Your task to perform on an android device: Search for dining sets on article.com Image 0: 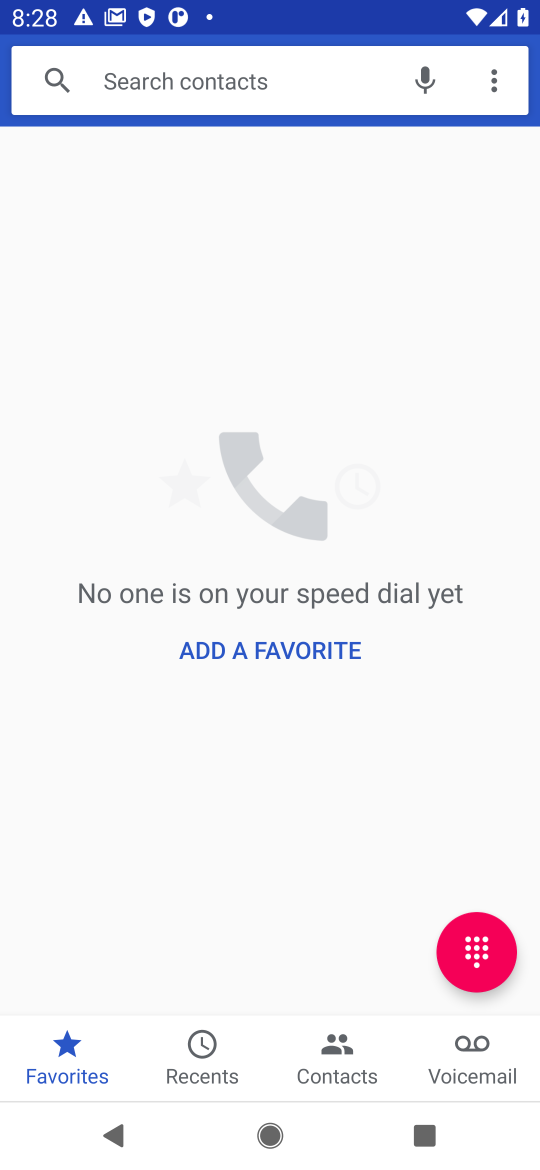
Step 0: press home button
Your task to perform on an android device: Search for dining sets on article.com Image 1: 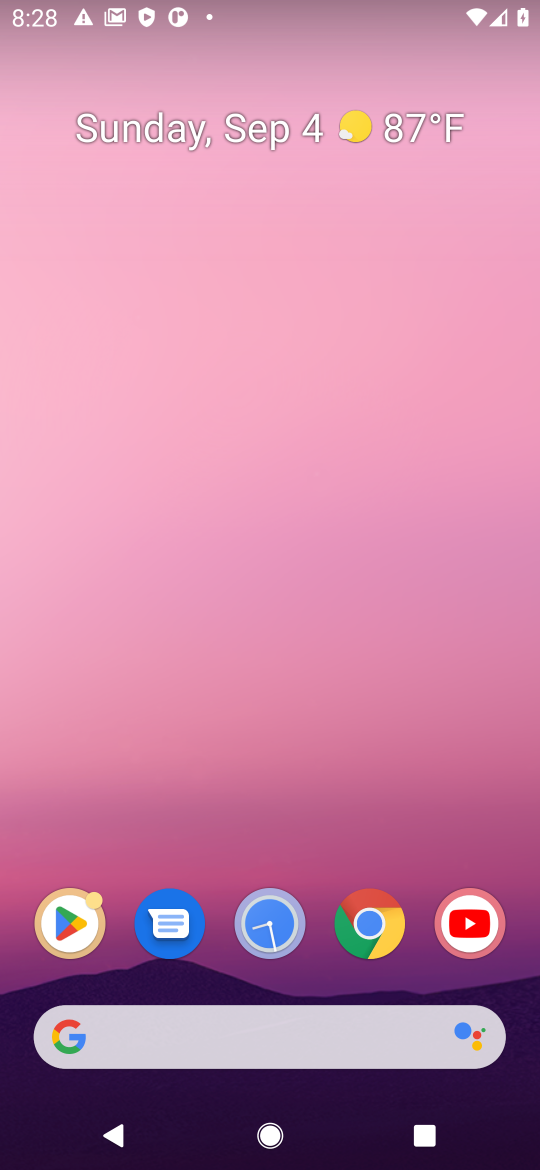
Step 1: click (380, 1039)
Your task to perform on an android device: Search for dining sets on article.com Image 2: 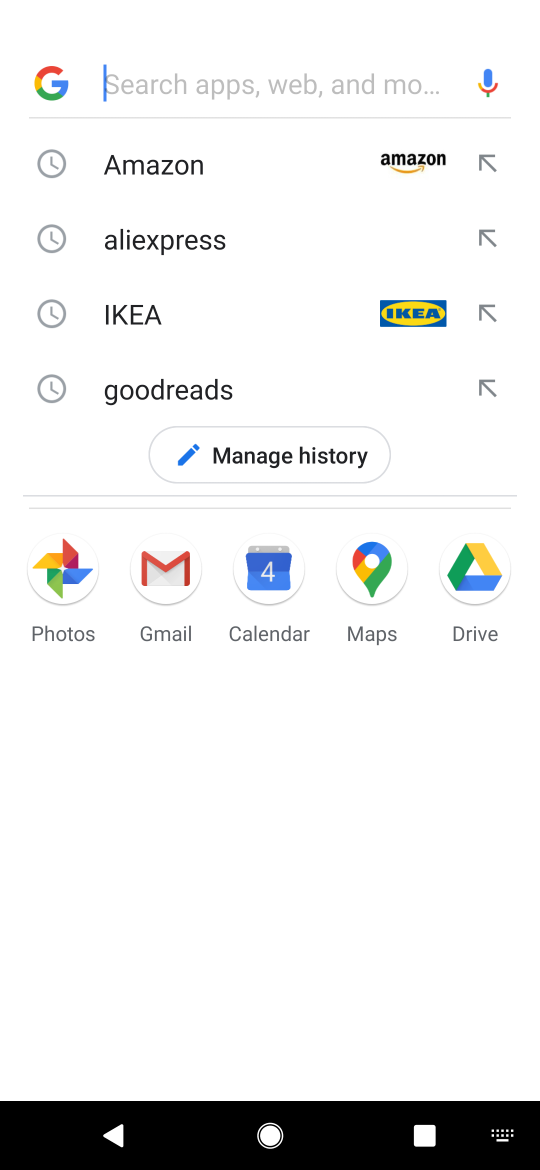
Step 2: press enter
Your task to perform on an android device: Search for dining sets on article.com Image 3: 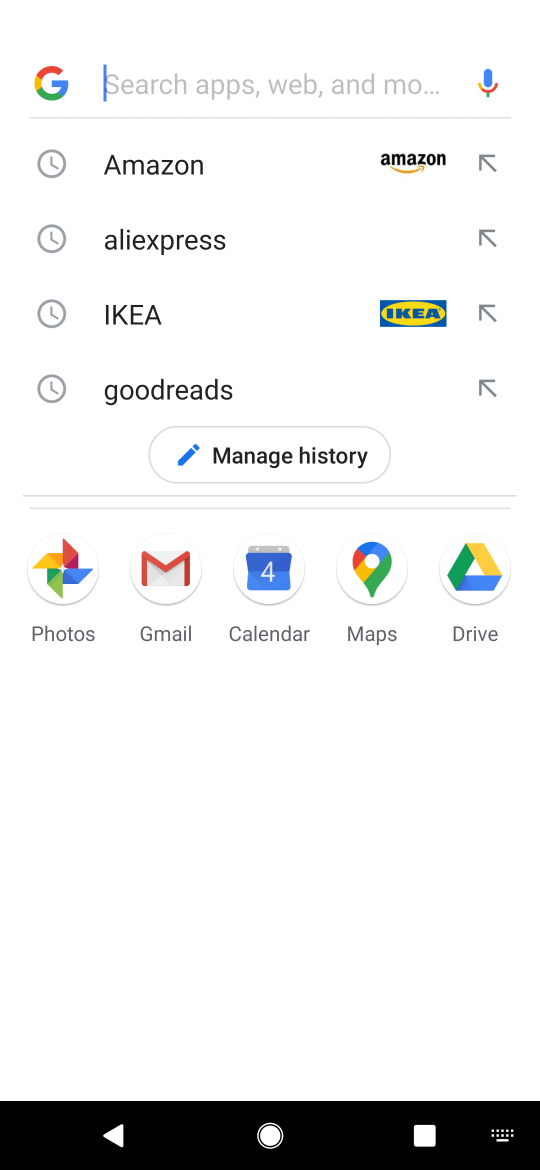
Step 3: type "article.com"
Your task to perform on an android device: Search for dining sets on article.com Image 4: 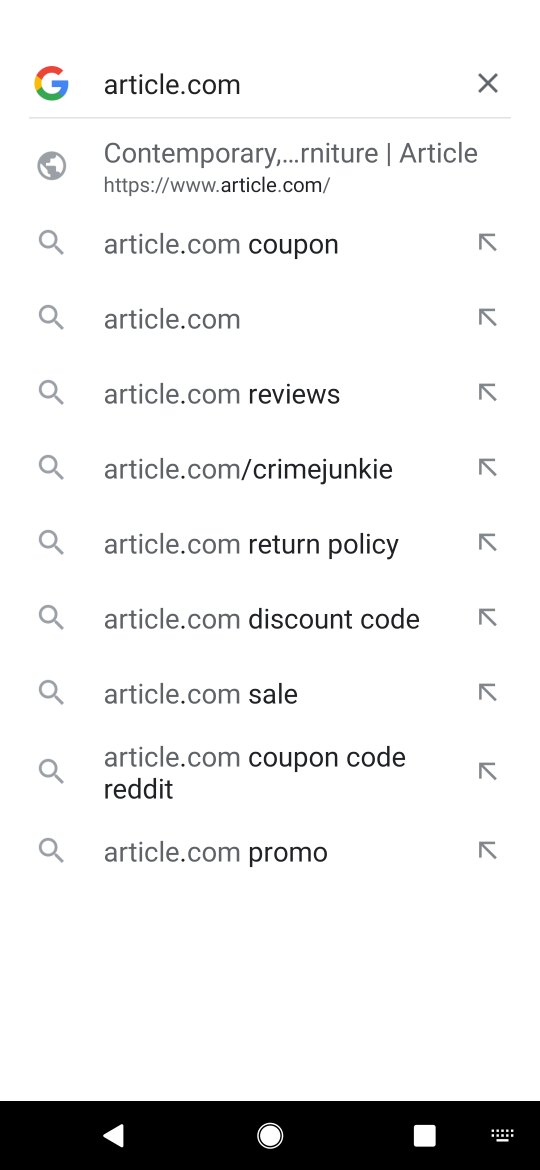
Step 4: click (261, 166)
Your task to perform on an android device: Search for dining sets on article.com Image 5: 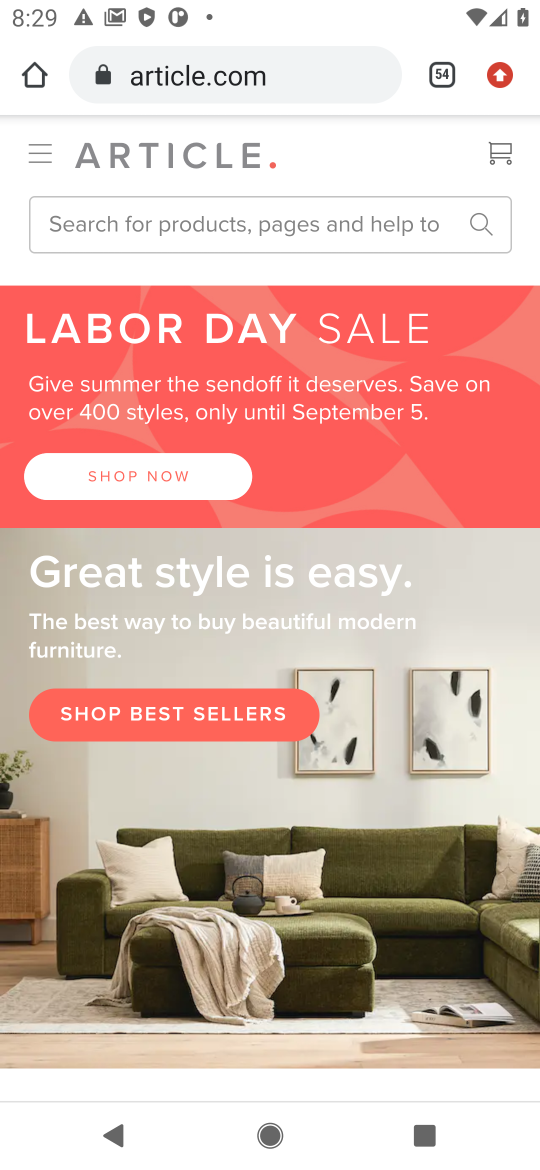
Step 5: click (233, 222)
Your task to perform on an android device: Search for dining sets on article.com Image 6: 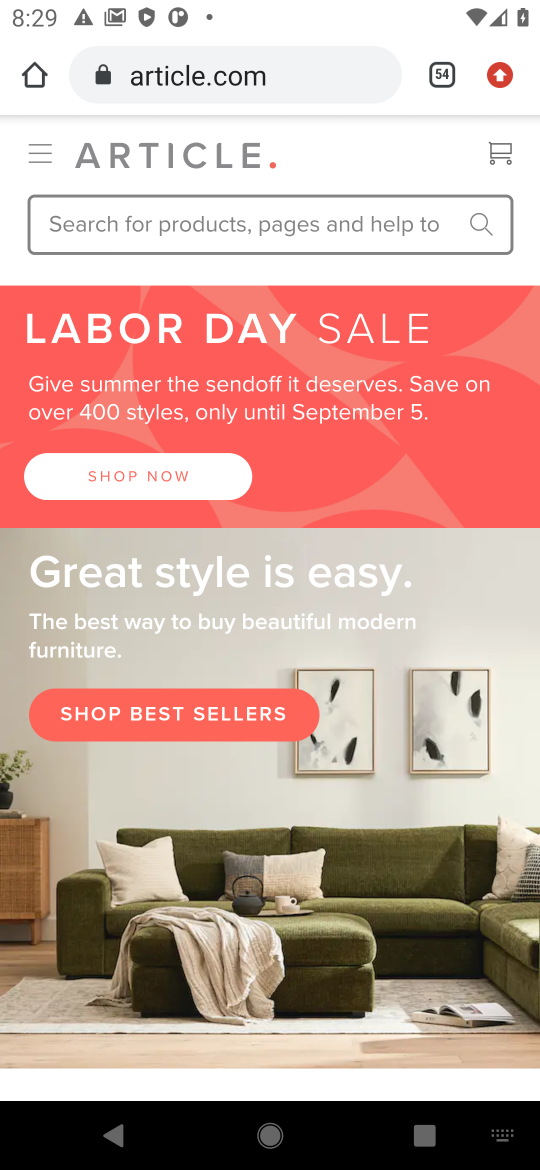
Step 6: press enter
Your task to perform on an android device: Search for dining sets on article.com Image 7: 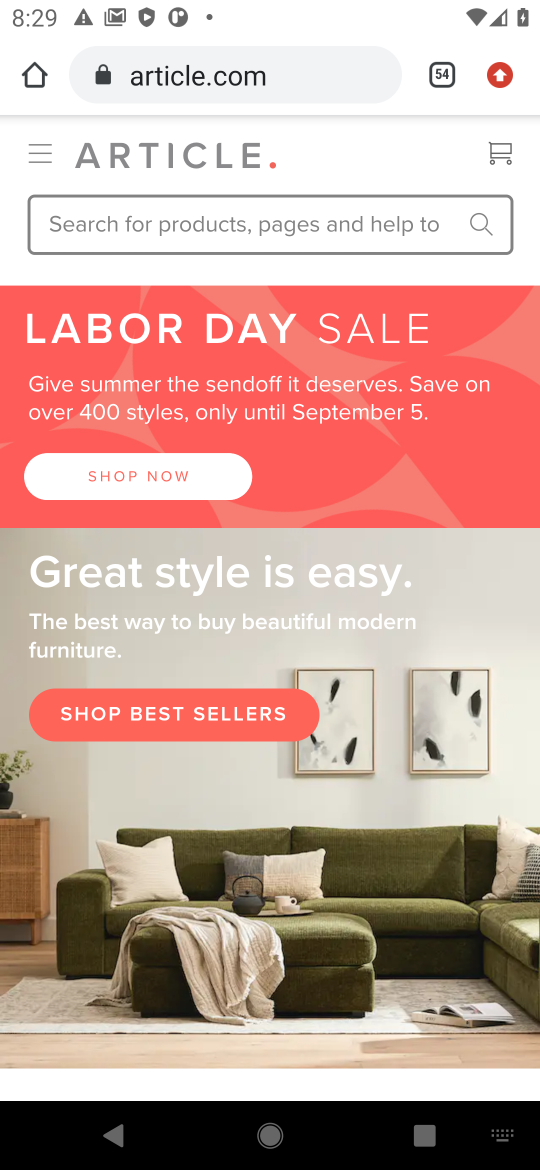
Step 7: type "dining sets"
Your task to perform on an android device: Search for dining sets on article.com Image 8: 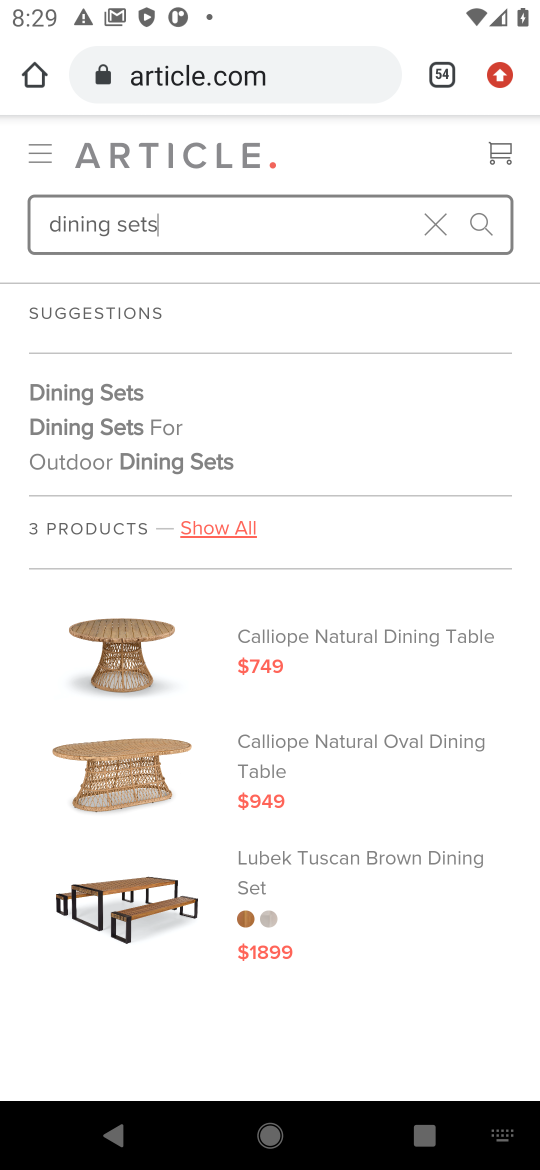
Step 8: task complete